Your task to perform on an android device: turn on wifi Image 0: 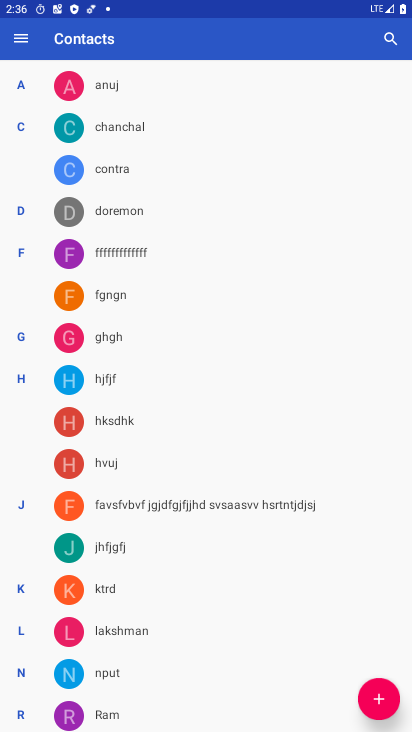
Step 0: press home button
Your task to perform on an android device: turn on wifi Image 1: 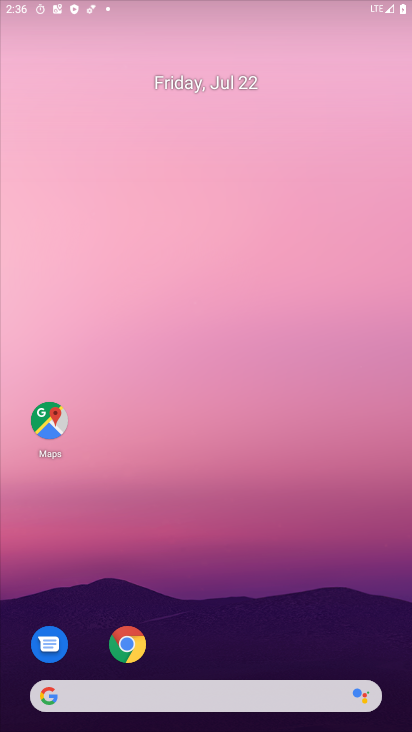
Step 1: drag from (267, 695) to (400, 1)
Your task to perform on an android device: turn on wifi Image 2: 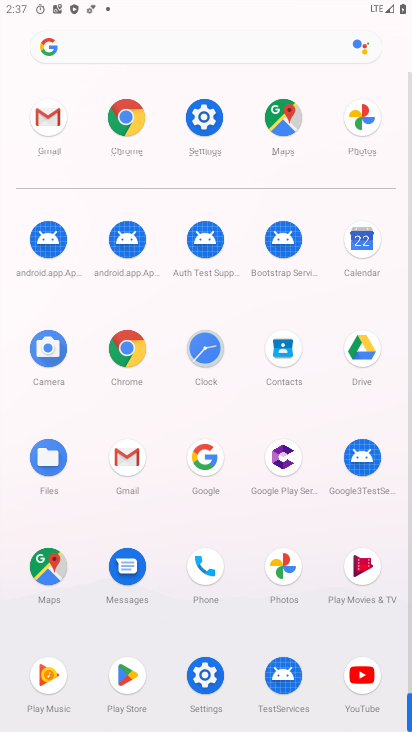
Step 2: click (191, 147)
Your task to perform on an android device: turn on wifi Image 3: 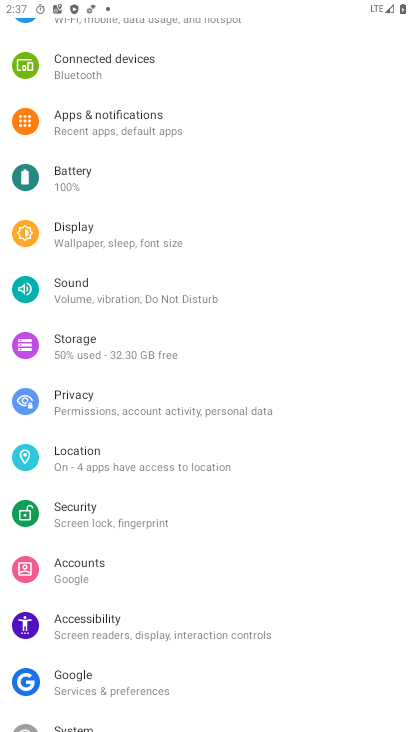
Step 3: drag from (179, 248) to (133, 658)
Your task to perform on an android device: turn on wifi Image 4: 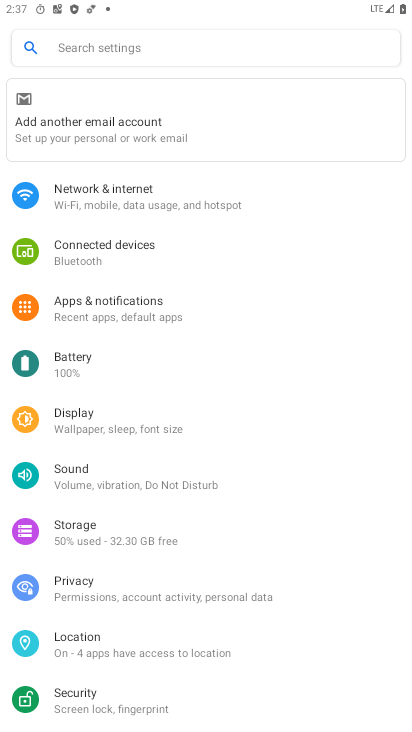
Step 4: click (153, 212)
Your task to perform on an android device: turn on wifi Image 5: 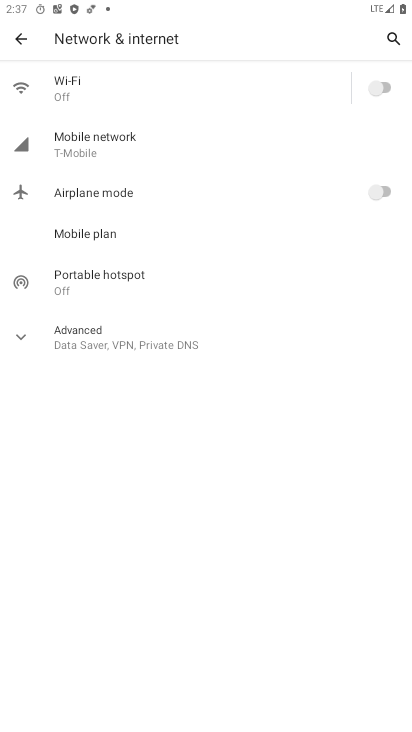
Step 5: click (390, 88)
Your task to perform on an android device: turn on wifi Image 6: 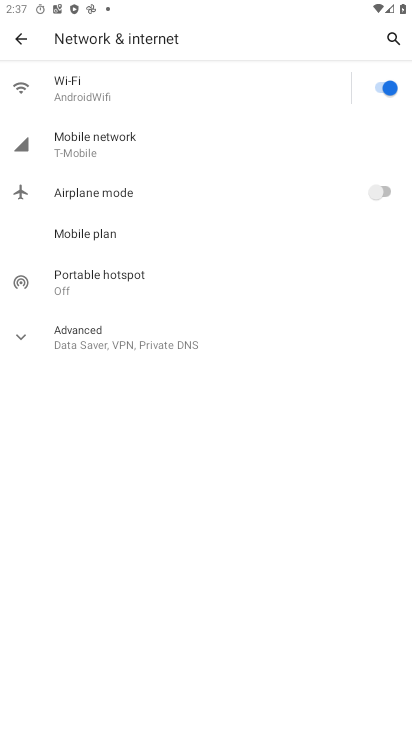
Step 6: task complete